Your task to perform on an android device: change the clock display to digital Image 0: 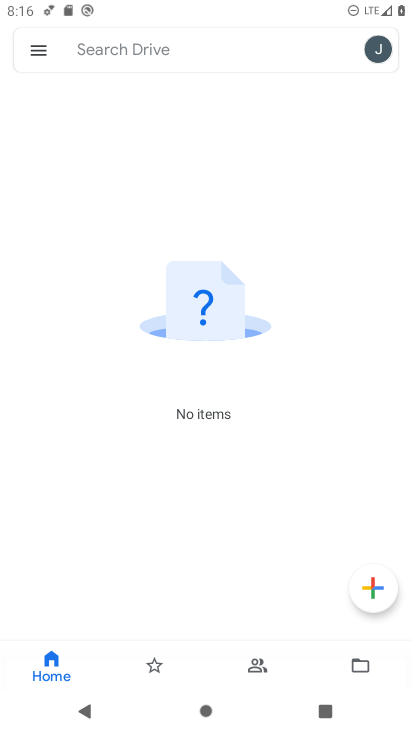
Step 0: press home button
Your task to perform on an android device: change the clock display to digital Image 1: 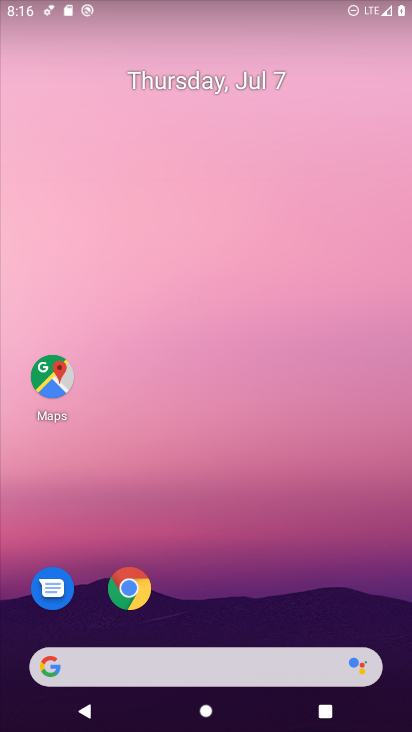
Step 1: drag from (157, 663) to (219, 151)
Your task to perform on an android device: change the clock display to digital Image 2: 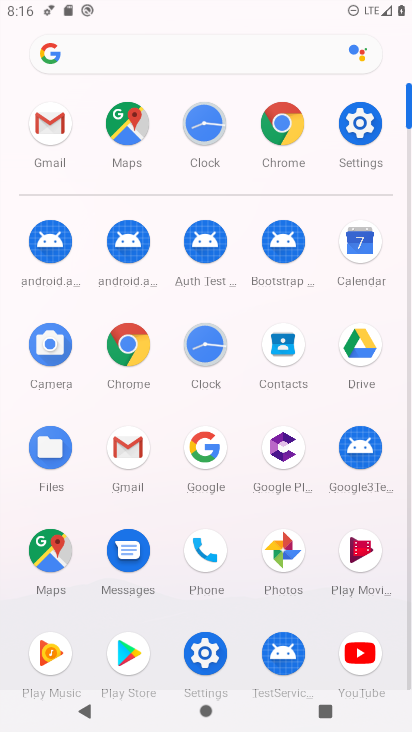
Step 2: click (206, 332)
Your task to perform on an android device: change the clock display to digital Image 3: 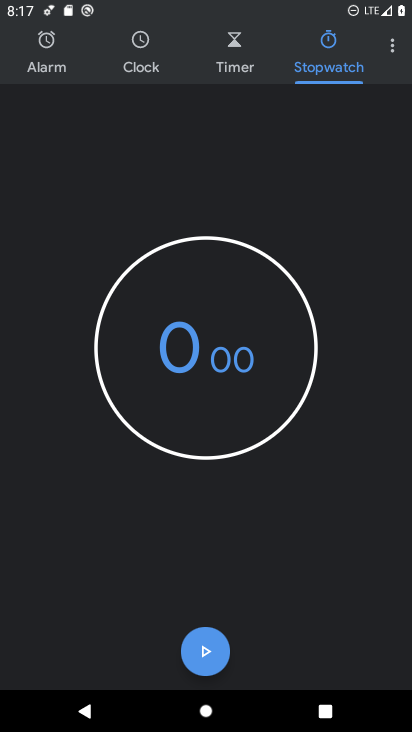
Step 3: click (386, 43)
Your task to perform on an android device: change the clock display to digital Image 4: 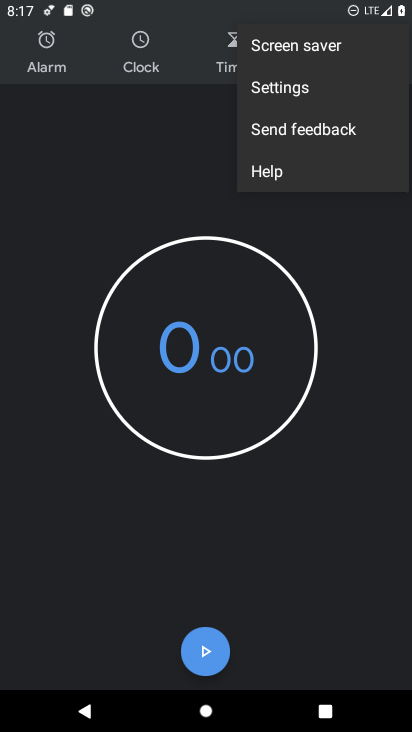
Step 4: click (313, 97)
Your task to perform on an android device: change the clock display to digital Image 5: 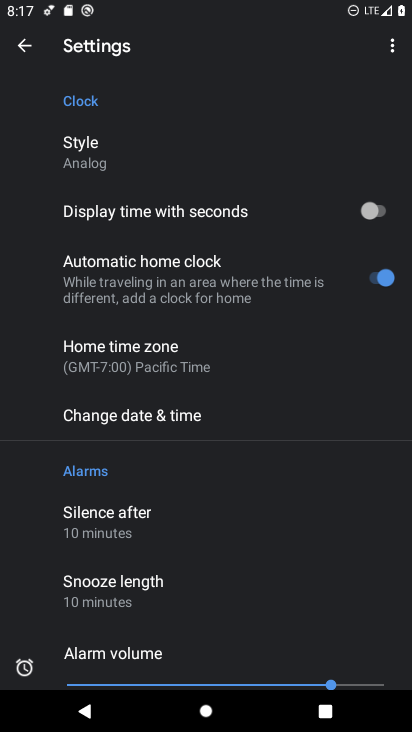
Step 5: click (112, 152)
Your task to perform on an android device: change the clock display to digital Image 6: 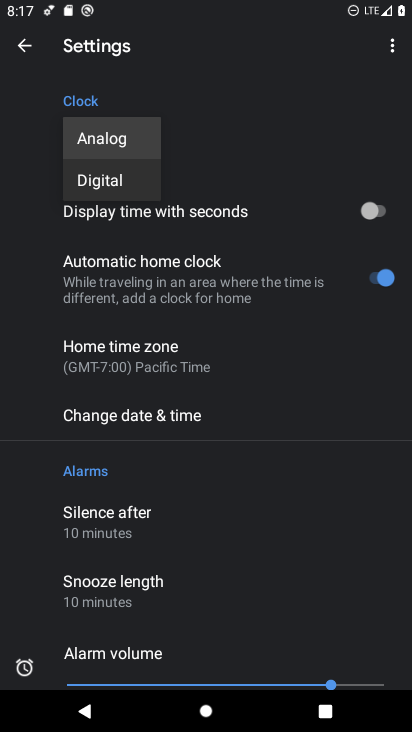
Step 6: click (100, 183)
Your task to perform on an android device: change the clock display to digital Image 7: 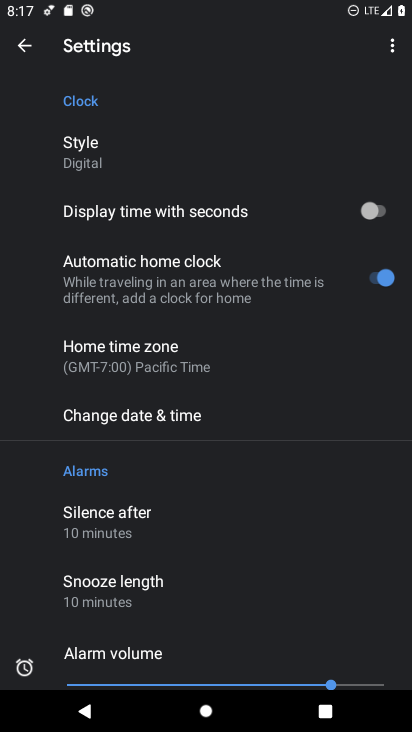
Step 7: task complete